Your task to perform on an android device: turn off location Image 0: 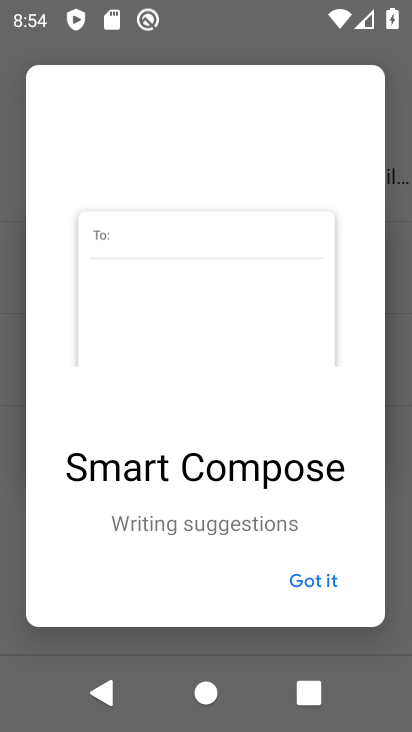
Step 0: press home button
Your task to perform on an android device: turn off location Image 1: 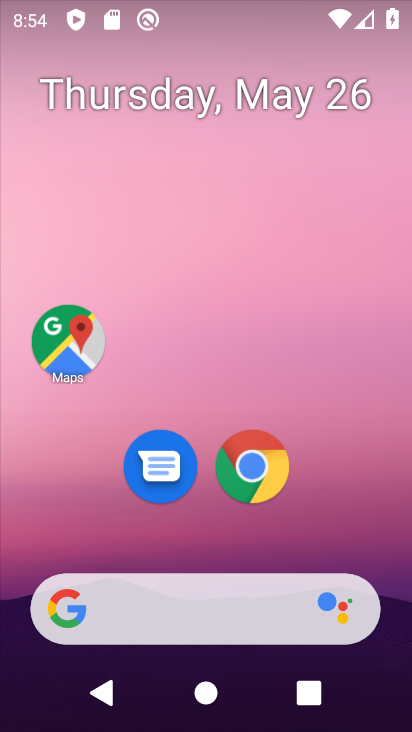
Step 1: drag from (326, 526) to (274, 5)
Your task to perform on an android device: turn off location Image 2: 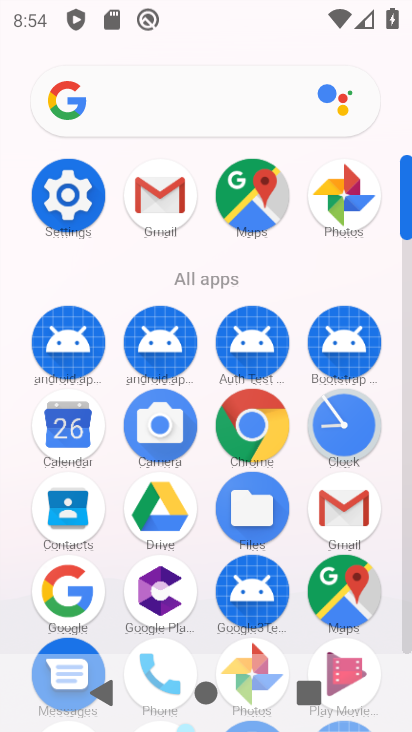
Step 2: click (64, 198)
Your task to perform on an android device: turn off location Image 3: 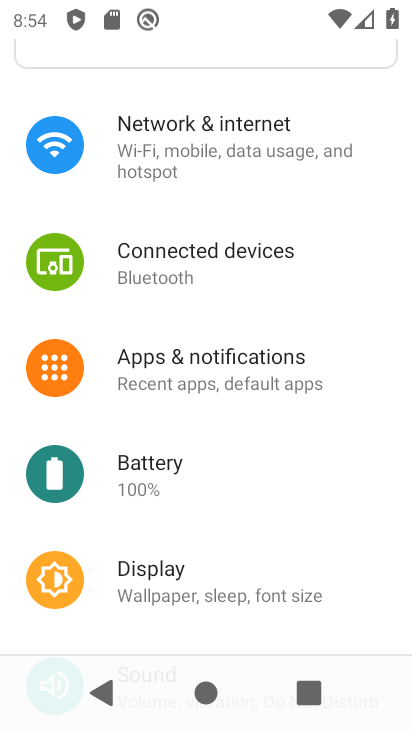
Step 3: drag from (244, 493) to (132, 50)
Your task to perform on an android device: turn off location Image 4: 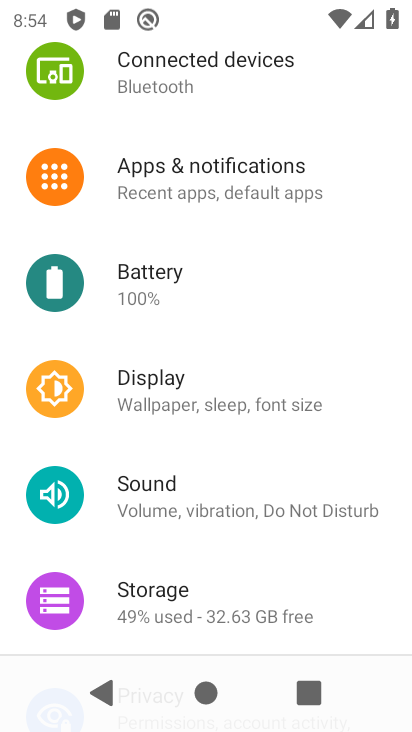
Step 4: drag from (222, 464) to (145, 68)
Your task to perform on an android device: turn off location Image 5: 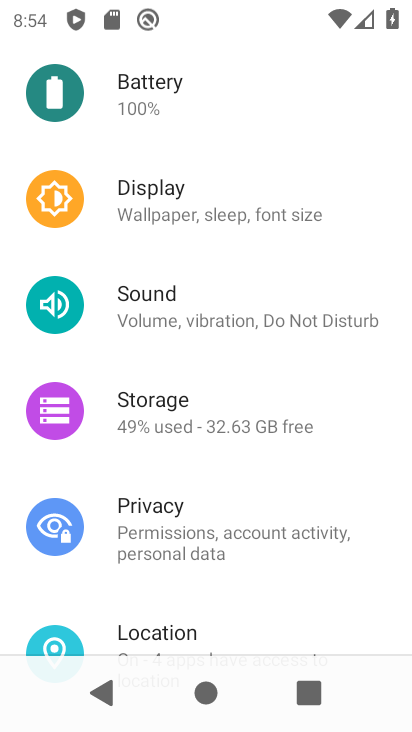
Step 5: drag from (221, 456) to (112, 101)
Your task to perform on an android device: turn off location Image 6: 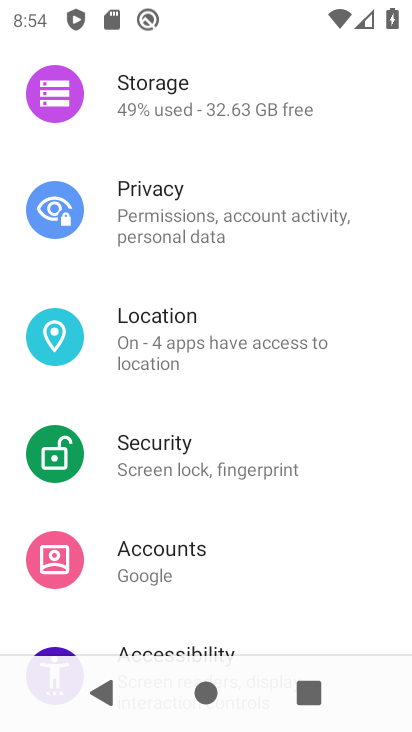
Step 6: click (148, 314)
Your task to perform on an android device: turn off location Image 7: 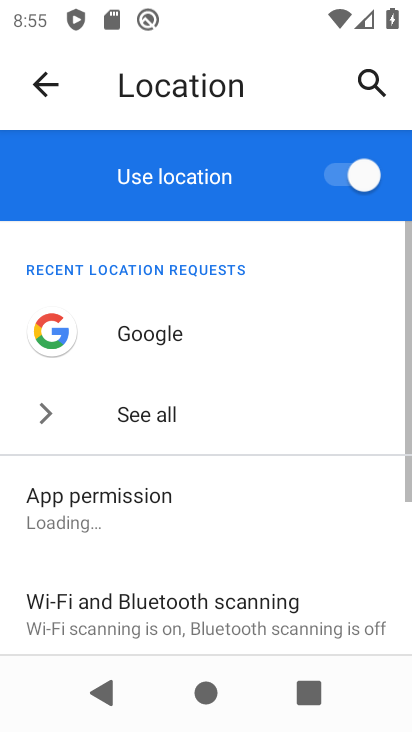
Step 7: click (352, 175)
Your task to perform on an android device: turn off location Image 8: 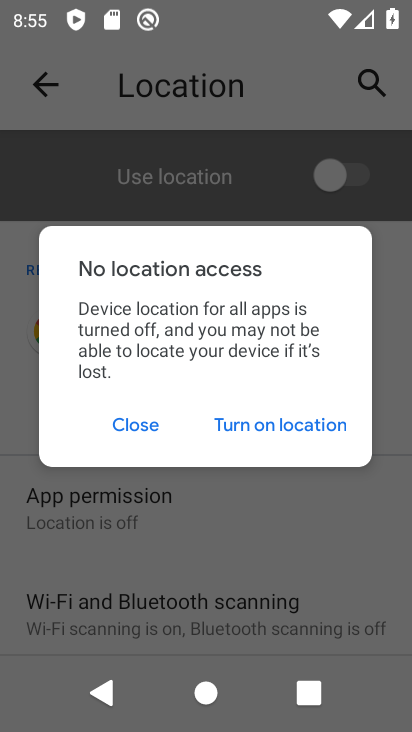
Step 8: click (141, 424)
Your task to perform on an android device: turn off location Image 9: 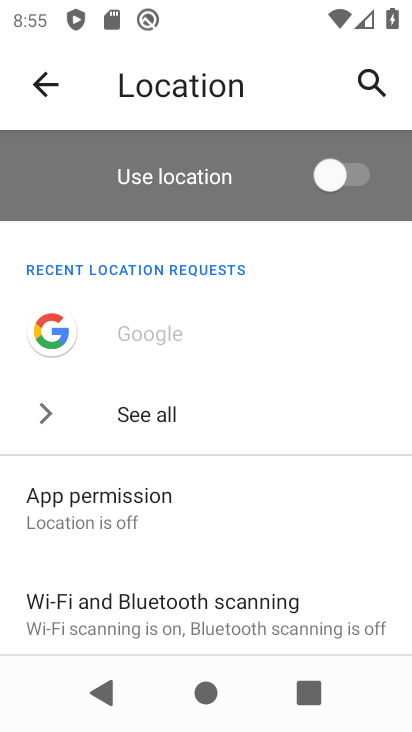
Step 9: task complete